Your task to perform on an android device: open chrome privacy settings Image 0: 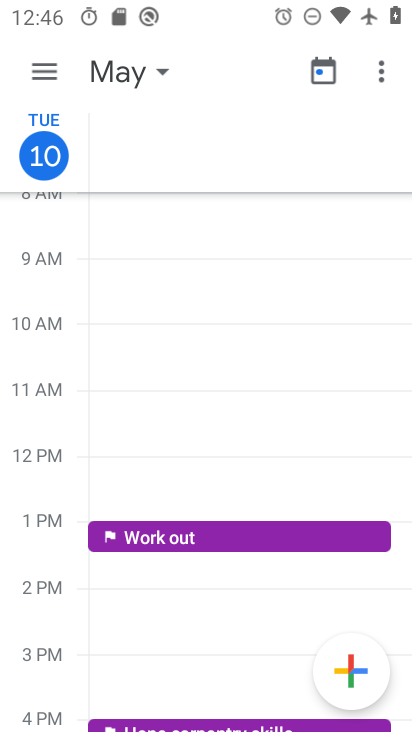
Step 0: press home button
Your task to perform on an android device: open chrome privacy settings Image 1: 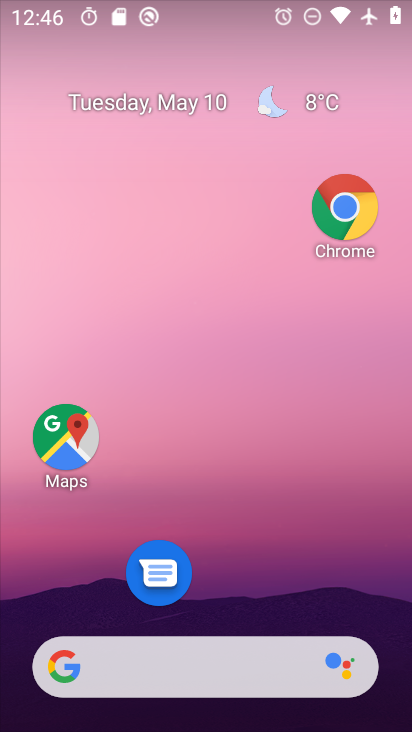
Step 1: drag from (321, 532) to (282, 96)
Your task to perform on an android device: open chrome privacy settings Image 2: 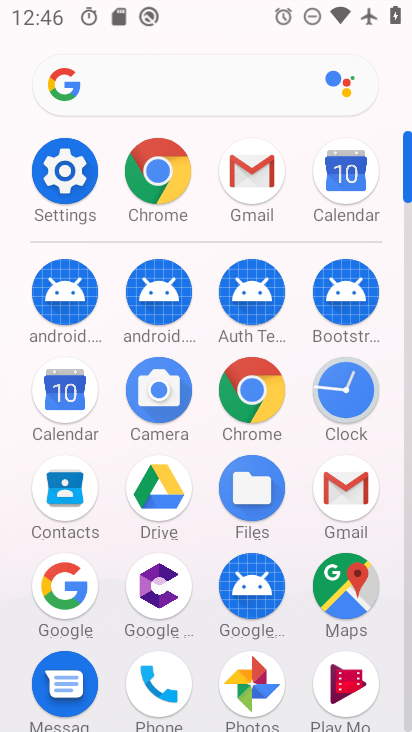
Step 2: click (145, 171)
Your task to perform on an android device: open chrome privacy settings Image 3: 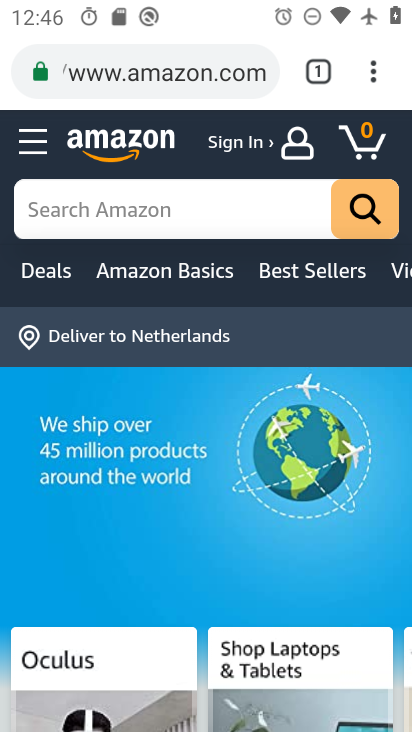
Step 3: drag from (376, 60) to (240, 578)
Your task to perform on an android device: open chrome privacy settings Image 4: 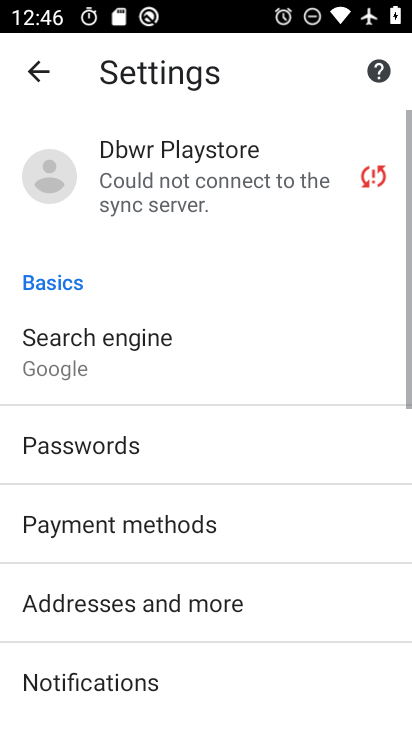
Step 4: drag from (270, 579) to (148, 12)
Your task to perform on an android device: open chrome privacy settings Image 5: 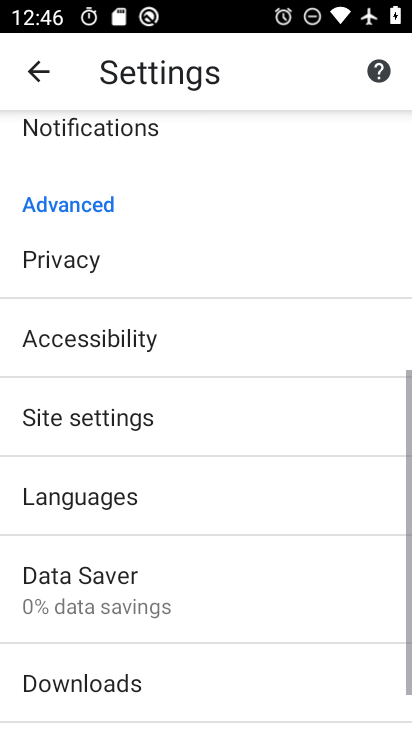
Step 5: drag from (186, 489) to (246, 148)
Your task to perform on an android device: open chrome privacy settings Image 6: 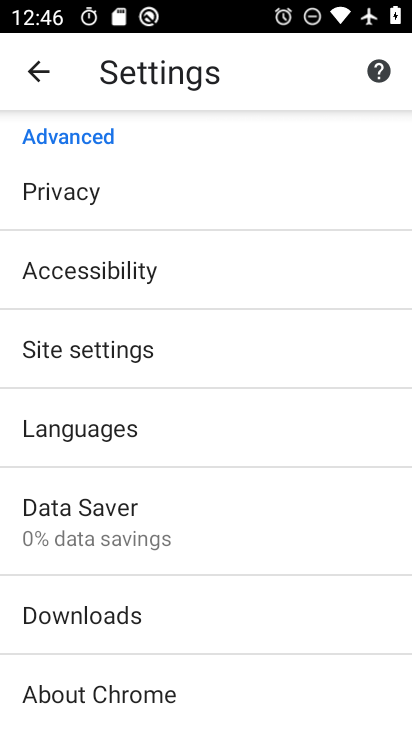
Step 6: click (90, 186)
Your task to perform on an android device: open chrome privacy settings Image 7: 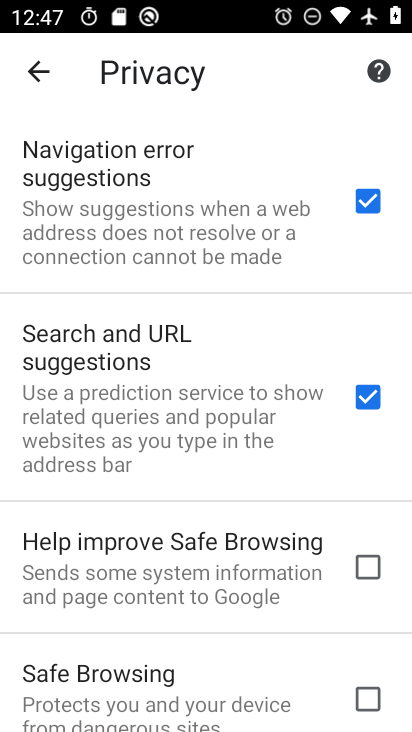
Step 7: task complete